Your task to perform on an android device: Search for Italian restaurants on Maps Image 0: 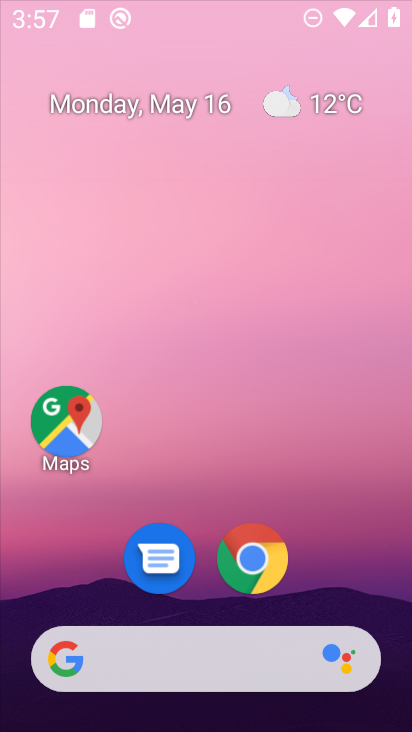
Step 0: click (207, 98)
Your task to perform on an android device: Search for Italian restaurants on Maps Image 1: 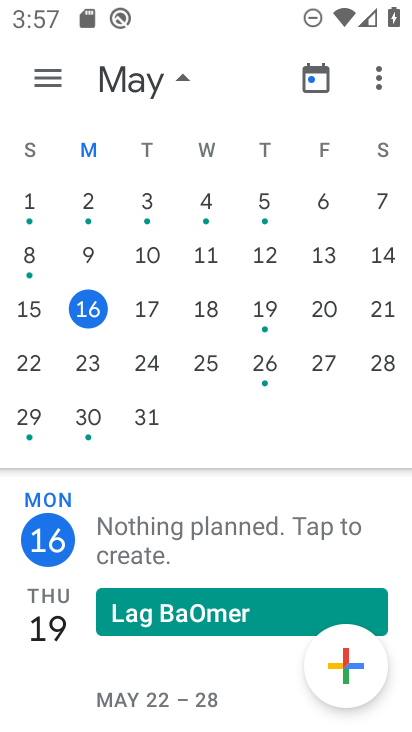
Step 1: press home button
Your task to perform on an android device: Search for Italian restaurants on Maps Image 2: 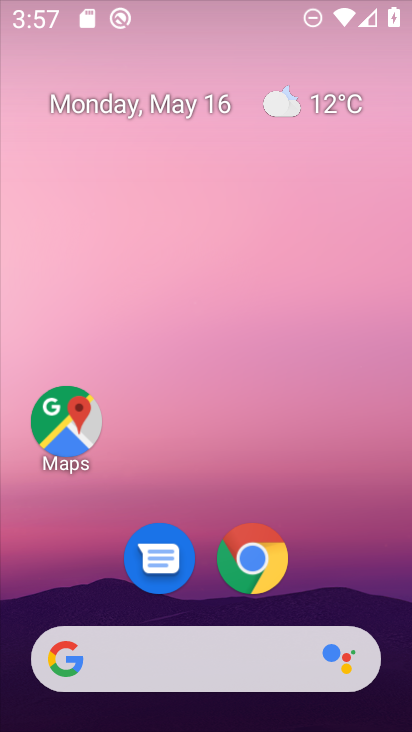
Step 2: click (57, 424)
Your task to perform on an android device: Search for Italian restaurants on Maps Image 3: 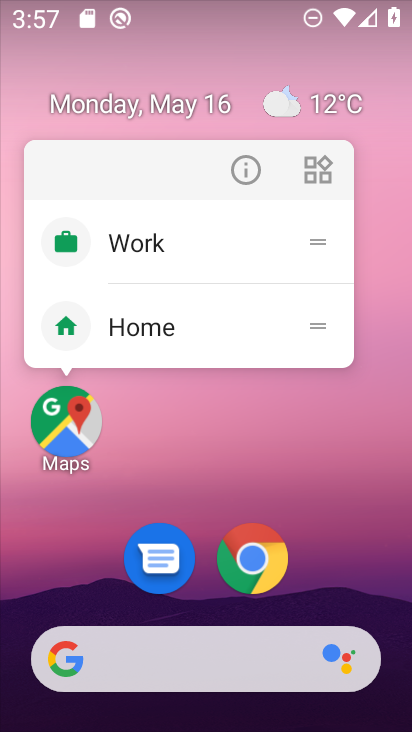
Step 3: click (62, 431)
Your task to perform on an android device: Search for Italian restaurants on Maps Image 4: 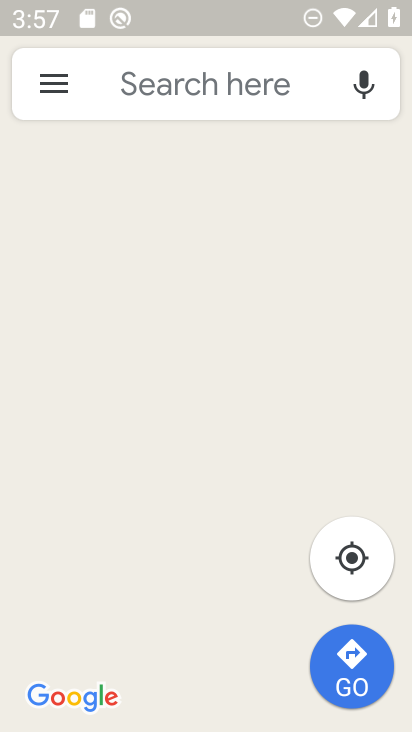
Step 4: click (210, 102)
Your task to perform on an android device: Search for Italian restaurants on Maps Image 5: 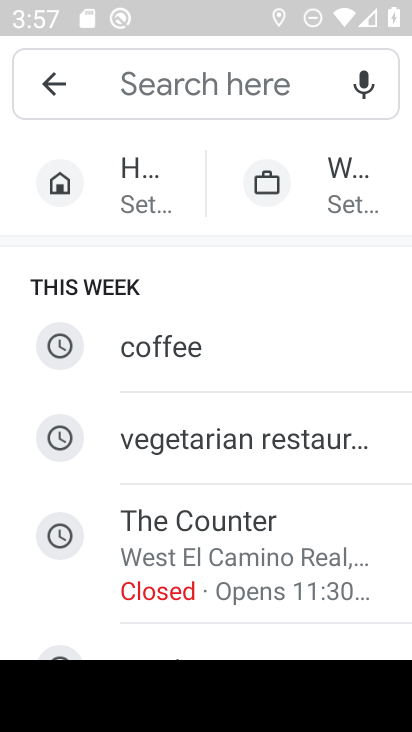
Step 5: type "Italian restaurants"
Your task to perform on an android device: Search for Italian restaurants on Maps Image 6: 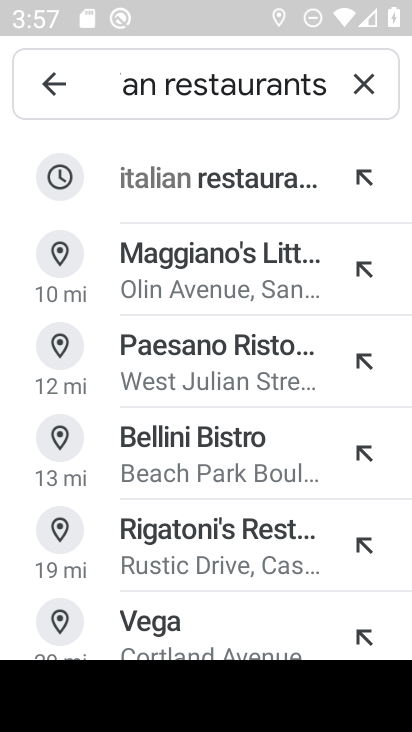
Step 6: click (201, 181)
Your task to perform on an android device: Search for Italian restaurants on Maps Image 7: 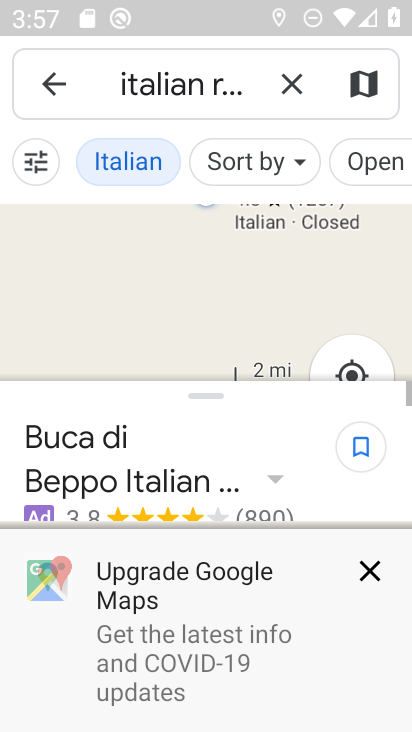
Step 7: task complete